Your task to perform on an android device: Go to network settings Image 0: 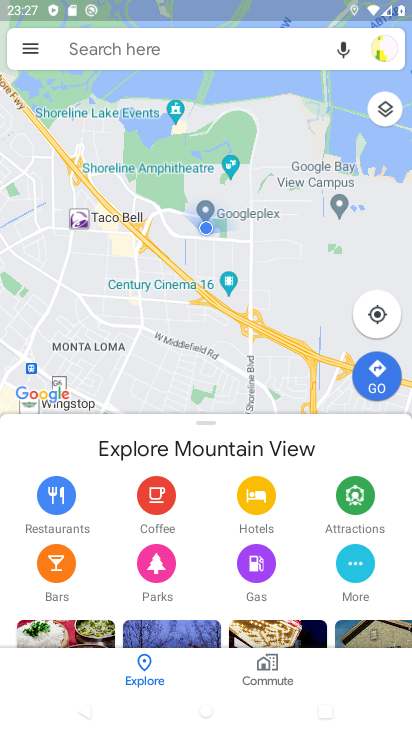
Step 0: press home button
Your task to perform on an android device: Go to network settings Image 1: 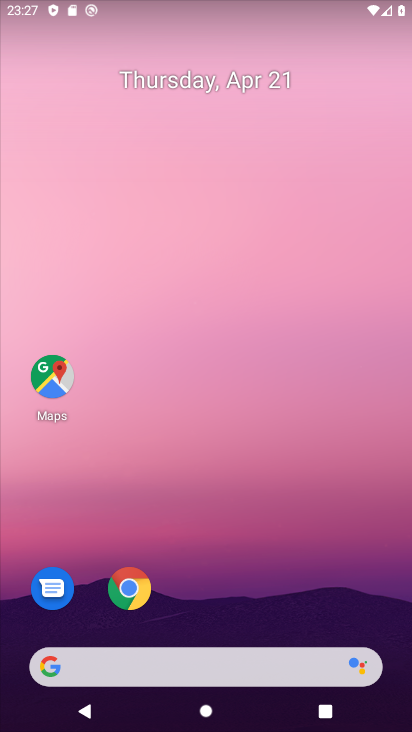
Step 1: drag from (229, 497) to (237, 61)
Your task to perform on an android device: Go to network settings Image 2: 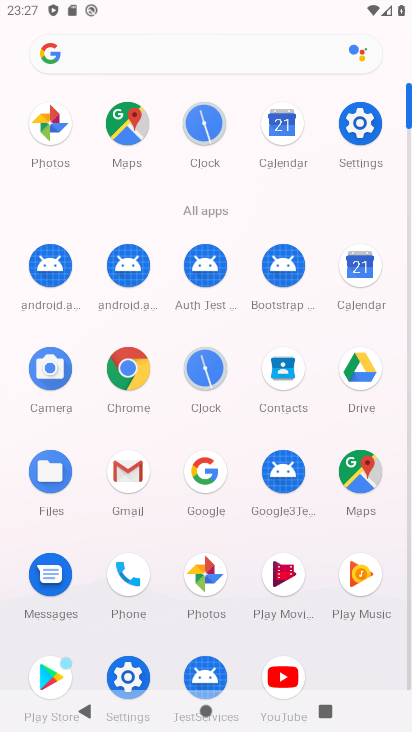
Step 2: click (366, 139)
Your task to perform on an android device: Go to network settings Image 3: 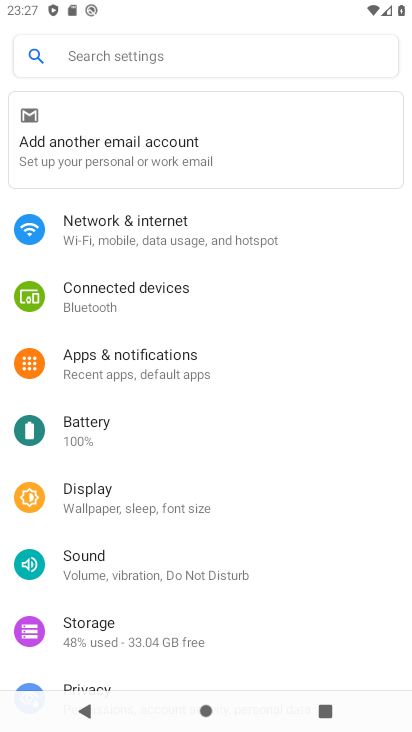
Step 3: click (172, 220)
Your task to perform on an android device: Go to network settings Image 4: 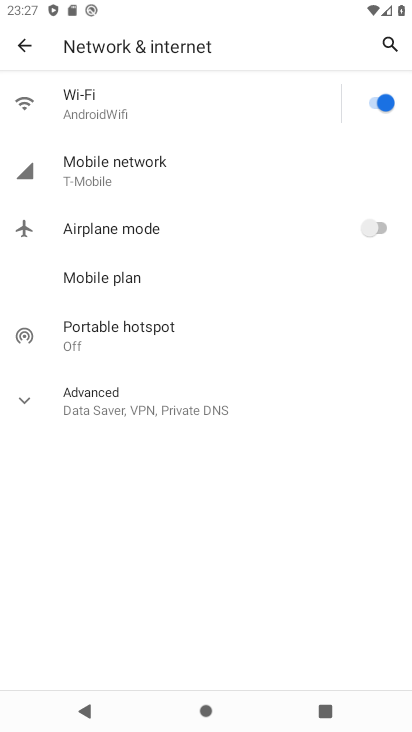
Step 4: click (148, 166)
Your task to perform on an android device: Go to network settings Image 5: 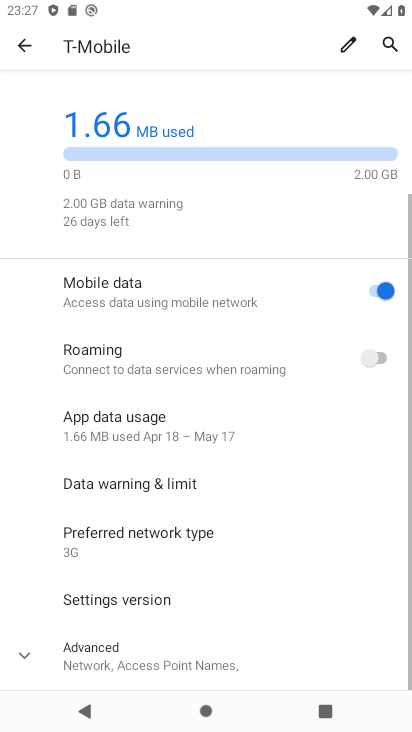
Step 5: task complete